Your task to perform on an android device: Go to calendar. Show me events next week Image 0: 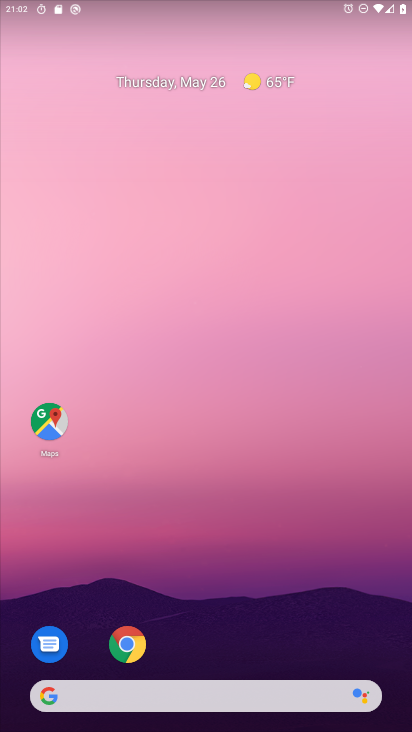
Step 0: click (221, 246)
Your task to perform on an android device: Go to calendar. Show me events next week Image 1: 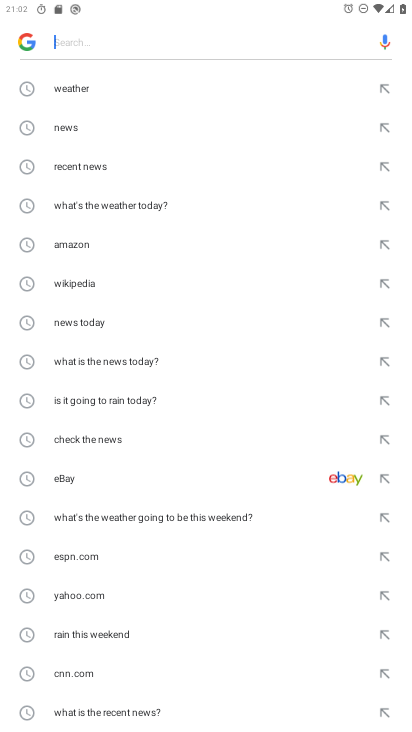
Step 1: drag from (193, 636) to (241, 308)
Your task to perform on an android device: Go to calendar. Show me events next week Image 2: 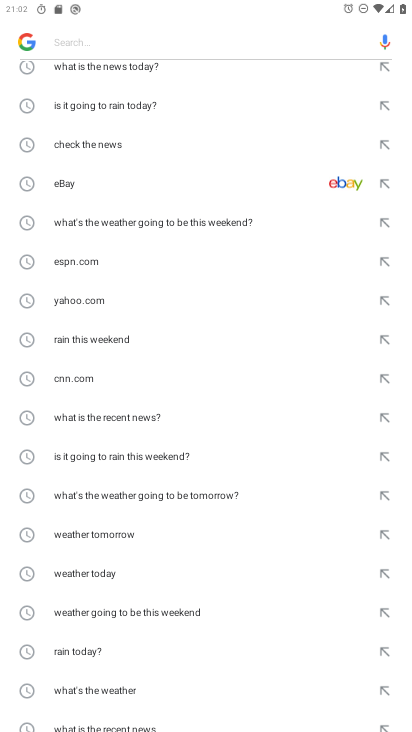
Step 2: press home button
Your task to perform on an android device: Go to calendar. Show me events next week Image 3: 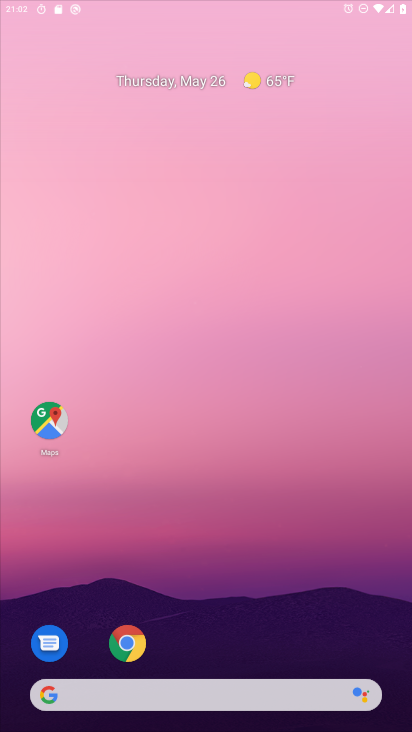
Step 3: drag from (219, 615) to (258, 316)
Your task to perform on an android device: Go to calendar. Show me events next week Image 4: 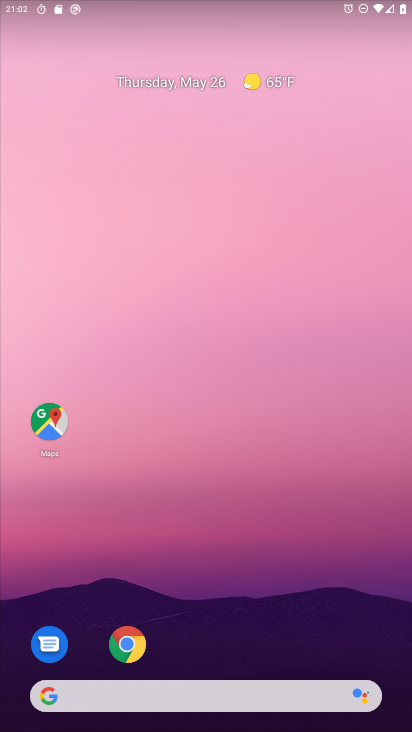
Step 4: drag from (203, 635) to (255, 6)
Your task to perform on an android device: Go to calendar. Show me events next week Image 5: 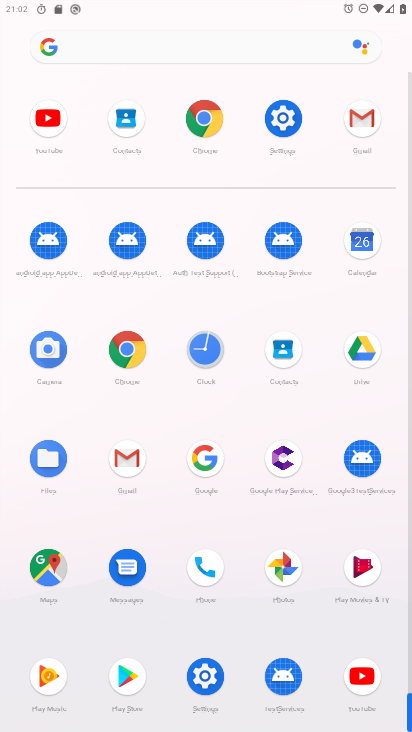
Step 5: drag from (251, 625) to (262, 353)
Your task to perform on an android device: Go to calendar. Show me events next week Image 6: 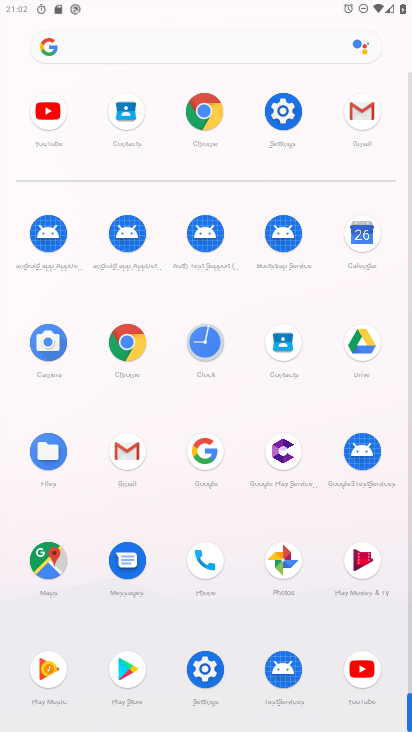
Step 6: click (356, 230)
Your task to perform on an android device: Go to calendar. Show me events next week Image 7: 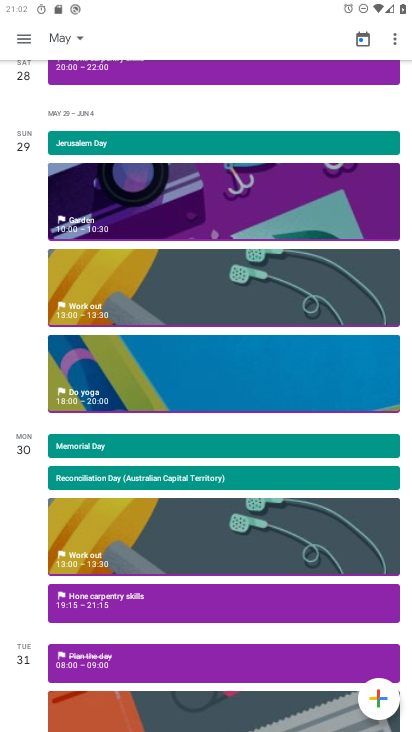
Step 7: click (60, 28)
Your task to perform on an android device: Go to calendar. Show me events next week Image 8: 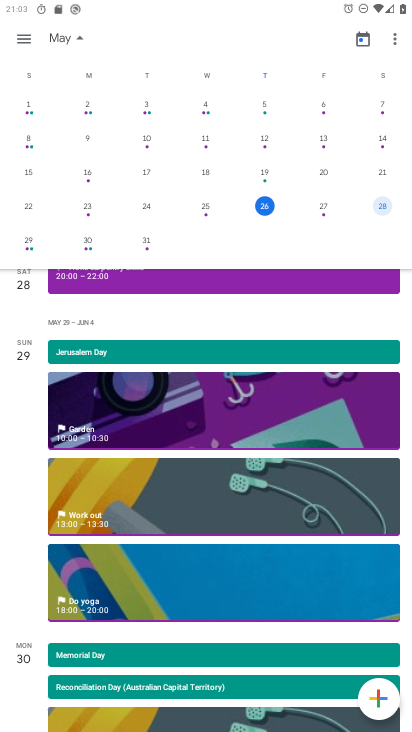
Step 8: click (88, 240)
Your task to perform on an android device: Go to calendar. Show me events next week Image 9: 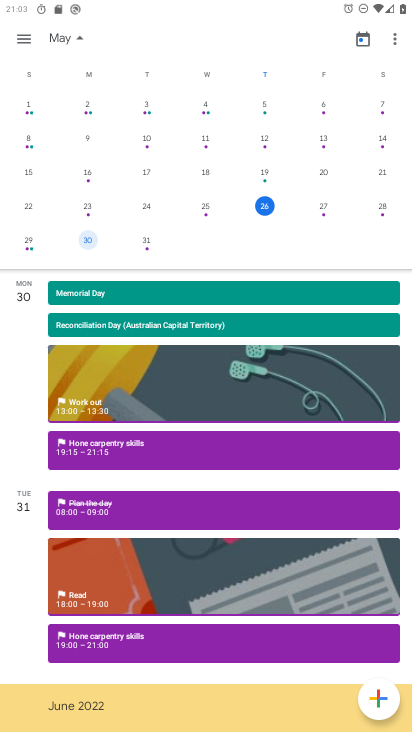
Step 9: drag from (238, 496) to (268, 341)
Your task to perform on an android device: Go to calendar. Show me events next week Image 10: 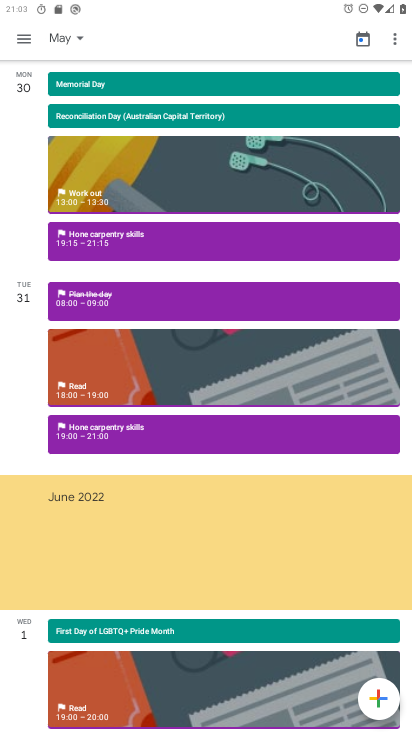
Step 10: drag from (215, 557) to (218, 446)
Your task to perform on an android device: Go to calendar. Show me events next week Image 11: 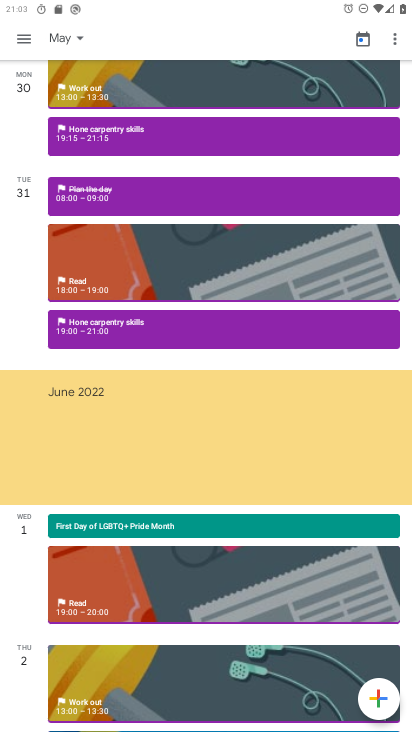
Step 11: drag from (225, 631) to (245, 462)
Your task to perform on an android device: Go to calendar. Show me events next week Image 12: 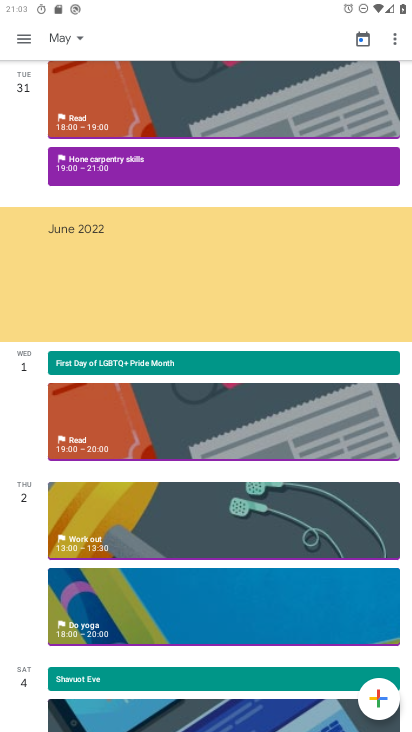
Step 12: drag from (232, 466) to (411, 489)
Your task to perform on an android device: Go to calendar. Show me events next week Image 13: 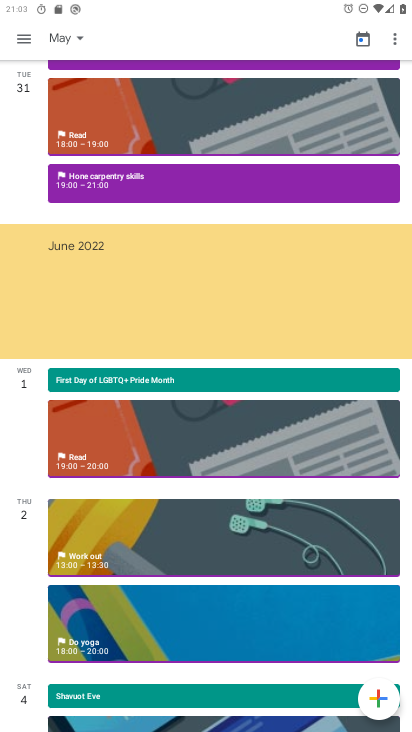
Step 13: click (65, 26)
Your task to perform on an android device: Go to calendar. Show me events next week Image 14: 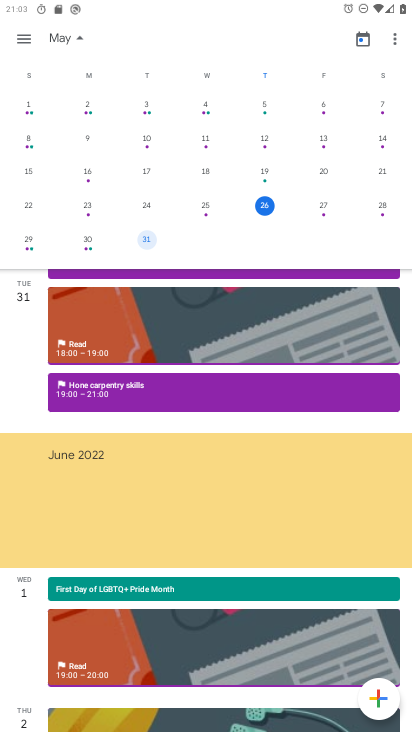
Step 14: click (86, 245)
Your task to perform on an android device: Go to calendar. Show me events next week Image 15: 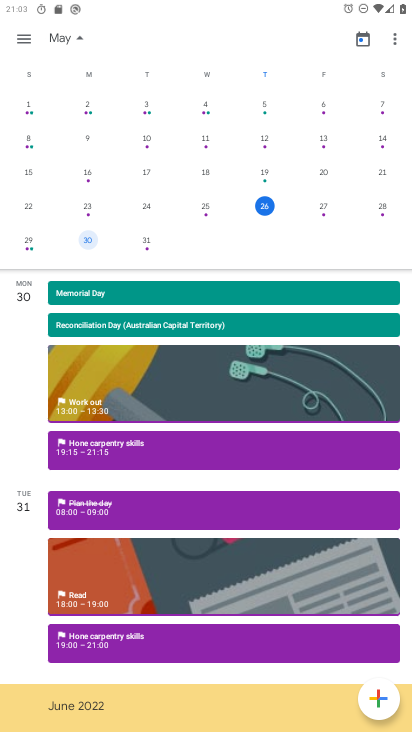
Step 15: drag from (167, 584) to (245, 291)
Your task to perform on an android device: Go to calendar. Show me events next week Image 16: 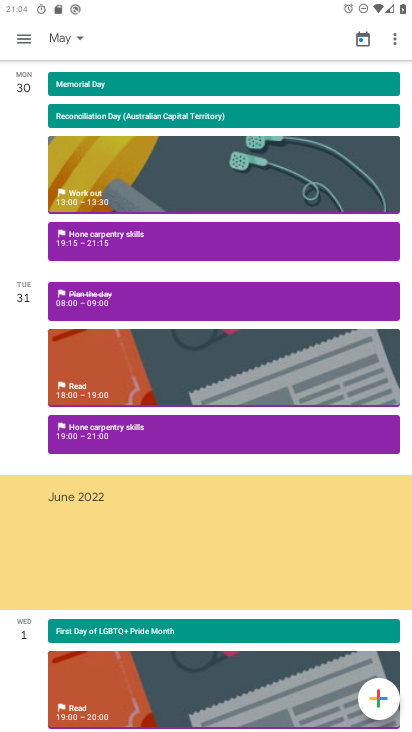
Step 16: drag from (205, 666) to (253, 333)
Your task to perform on an android device: Go to calendar. Show me events next week Image 17: 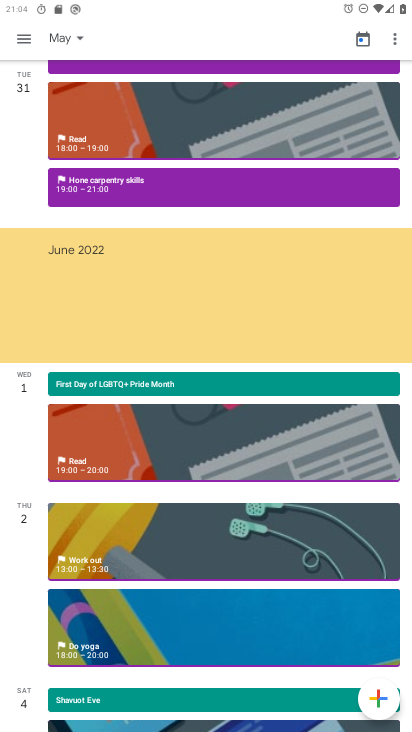
Step 17: drag from (171, 669) to (247, 376)
Your task to perform on an android device: Go to calendar. Show me events next week Image 18: 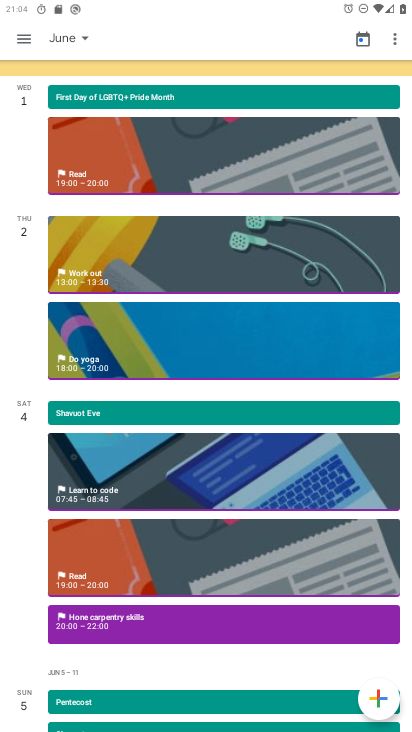
Step 18: drag from (255, 287) to (247, 720)
Your task to perform on an android device: Go to calendar. Show me events next week Image 19: 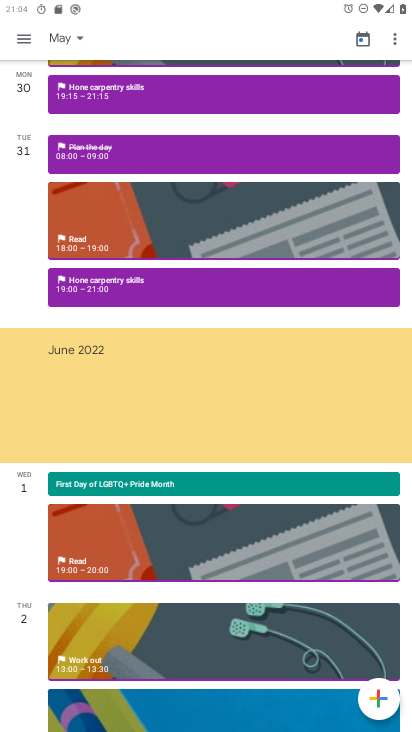
Step 19: drag from (198, 315) to (273, 730)
Your task to perform on an android device: Go to calendar. Show me events next week Image 20: 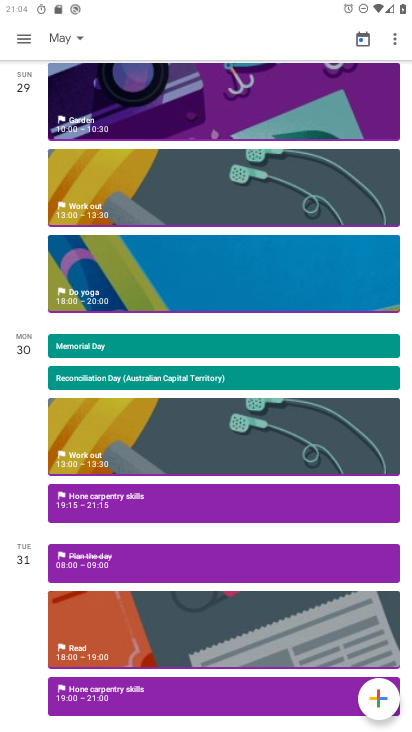
Step 20: click (67, 46)
Your task to perform on an android device: Go to calendar. Show me events next week Image 21: 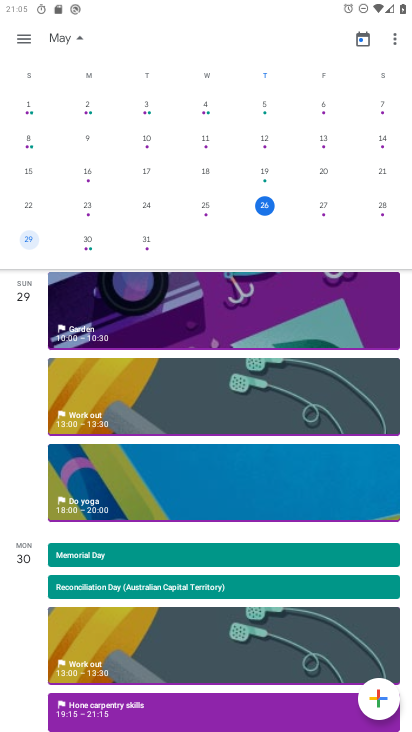
Step 21: click (91, 241)
Your task to perform on an android device: Go to calendar. Show me events next week Image 22: 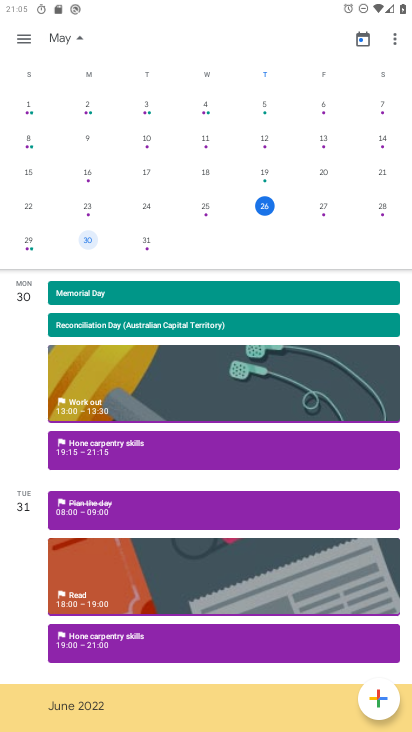
Step 22: task complete